Your task to perform on an android device: Set the phone to "Do not disturb". Image 0: 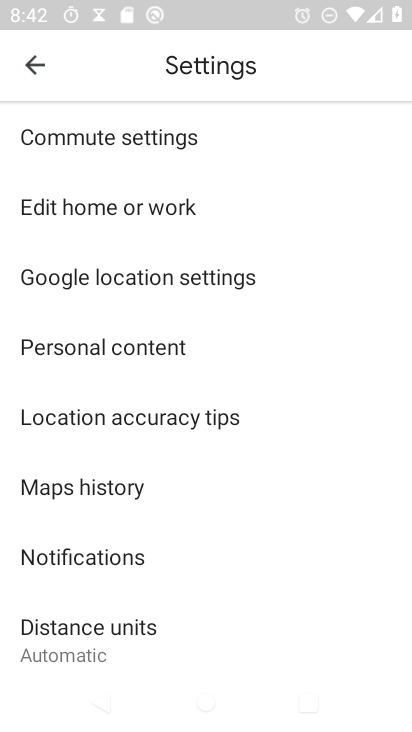
Step 0: press home button
Your task to perform on an android device: Set the phone to "Do not disturb". Image 1: 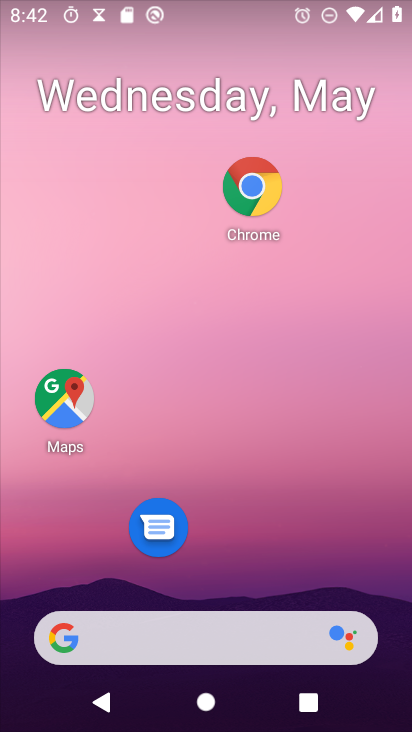
Step 1: task complete